Your task to perform on an android device: check android version Image 0: 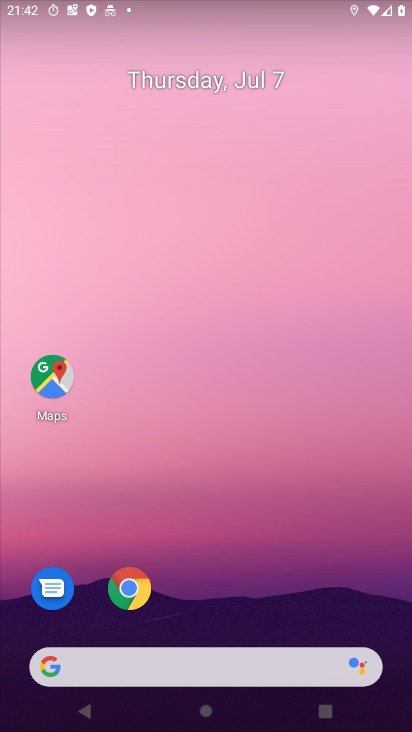
Step 0: drag from (286, 687) to (229, 50)
Your task to perform on an android device: check android version Image 1: 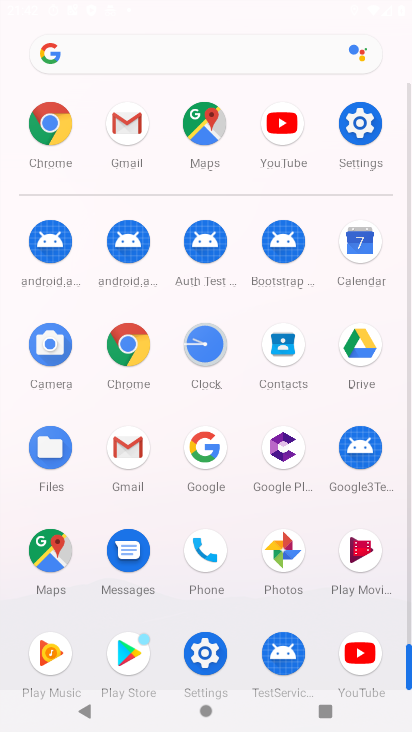
Step 1: click (207, 658)
Your task to perform on an android device: check android version Image 2: 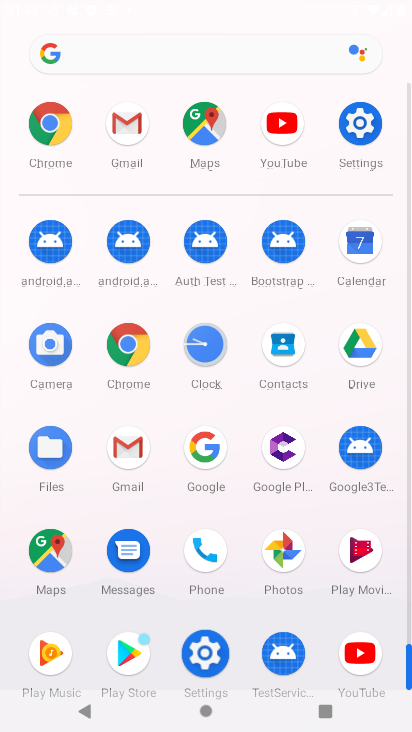
Step 2: click (207, 667)
Your task to perform on an android device: check android version Image 3: 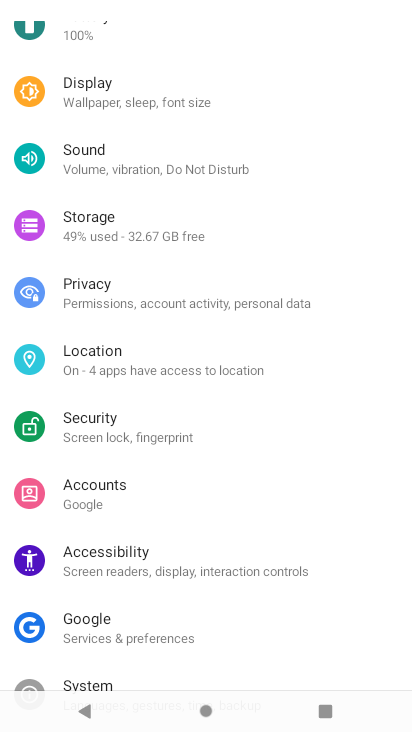
Step 3: drag from (154, 541) to (163, 152)
Your task to perform on an android device: check android version Image 4: 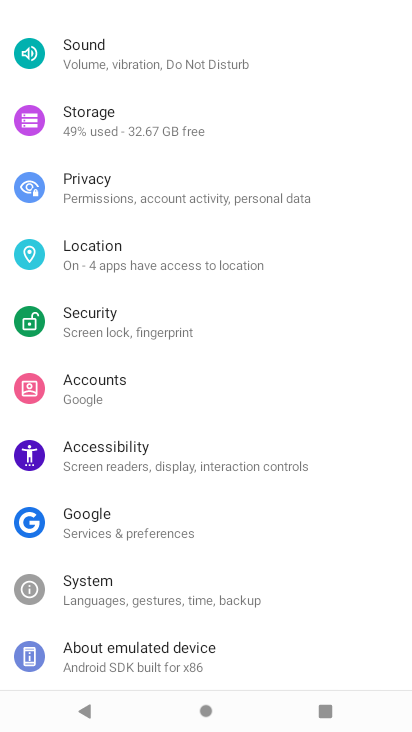
Step 4: drag from (205, 470) to (162, 0)
Your task to perform on an android device: check android version Image 5: 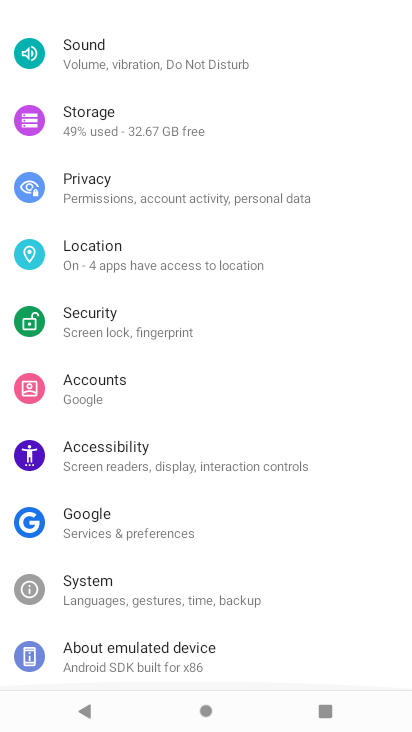
Step 5: drag from (204, 557) to (169, 147)
Your task to perform on an android device: check android version Image 6: 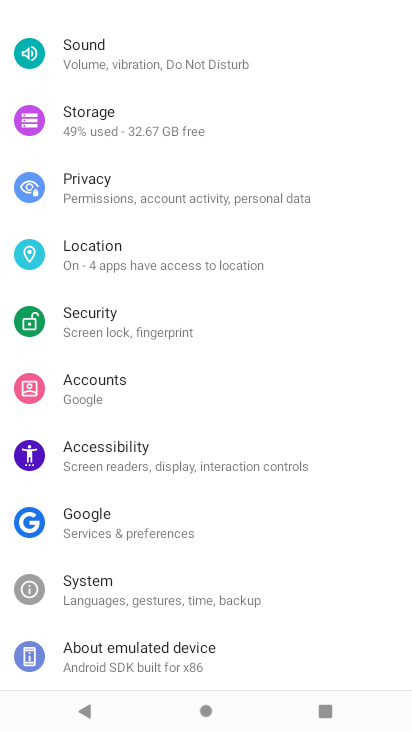
Step 6: click (145, 647)
Your task to perform on an android device: check android version Image 7: 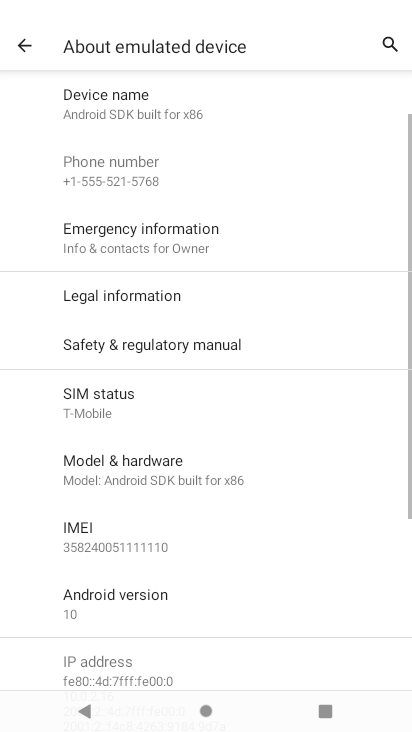
Step 7: task complete